Your task to perform on an android device: toggle notification dots Image 0: 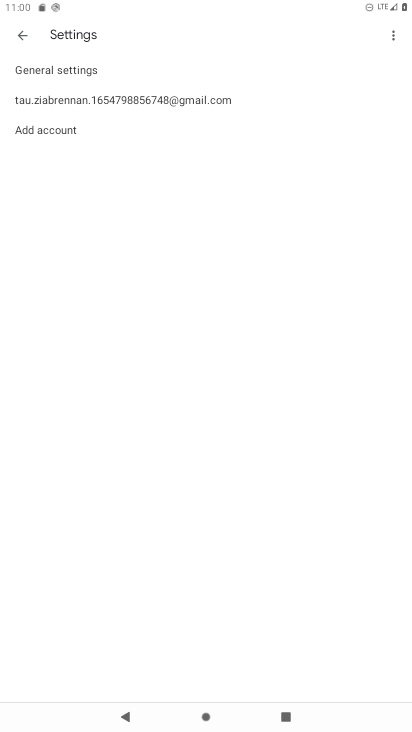
Step 0: press home button
Your task to perform on an android device: toggle notification dots Image 1: 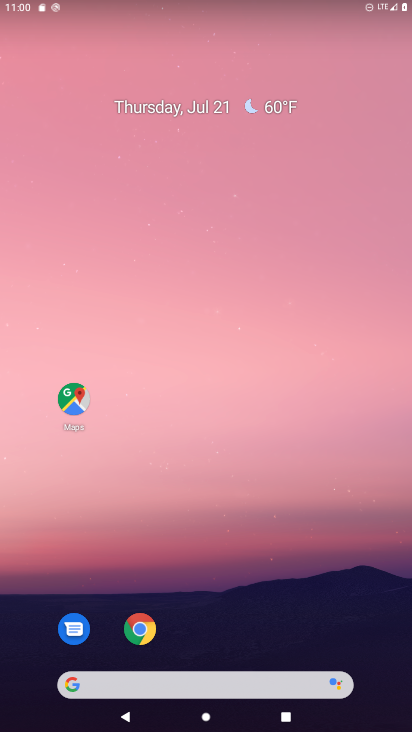
Step 1: drag from (245, 622) to (252, 96)
Your task to perform on an android device: toggle notification dots Image 2: 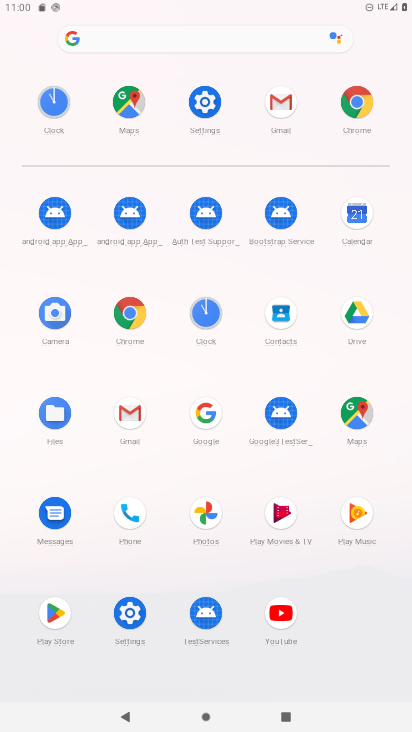
Step 2: click (193, 95)
Your task to perform on an android device: toggle notification dots Image 3: 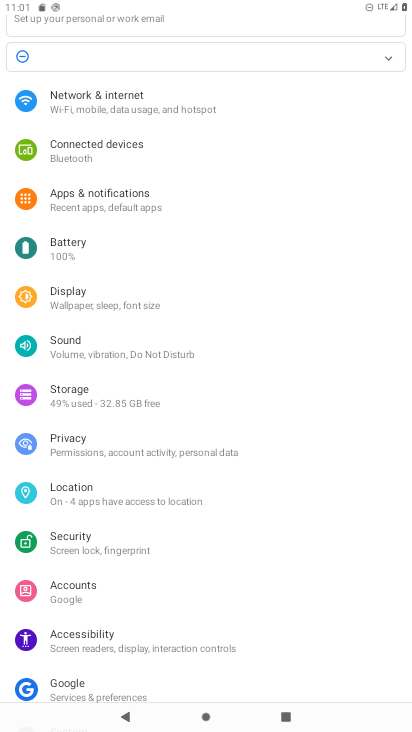
Step 3: click (94, 202)
Your task to perform on an android device: toggle notification dots Image 4: 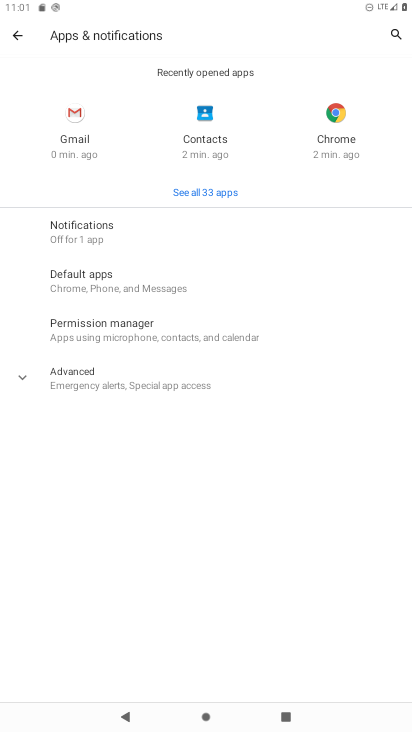
Step 4: click (70, 227)
Your task to perform on an android device: toggle notification dots Image 5: 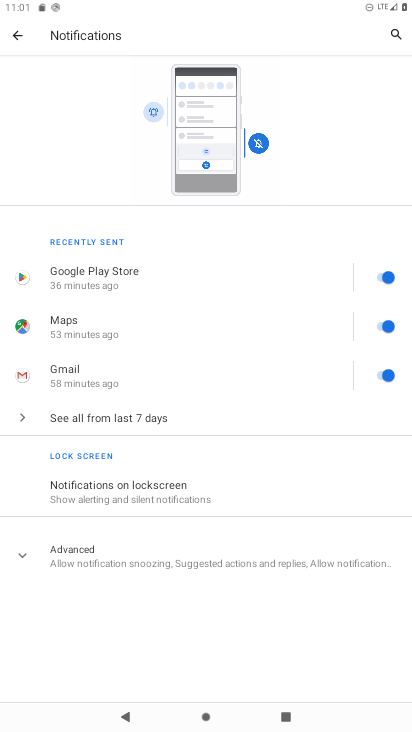
Step 5: click (22, 558)
Your task to perform on an android device: toggle notification dots Image 6: 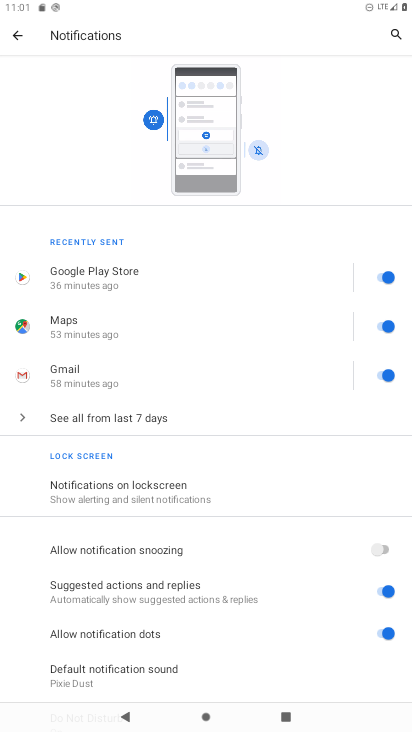
Step 6: click (378, 628)
Your task to perform on an android device: toggle notification dots Image 7: 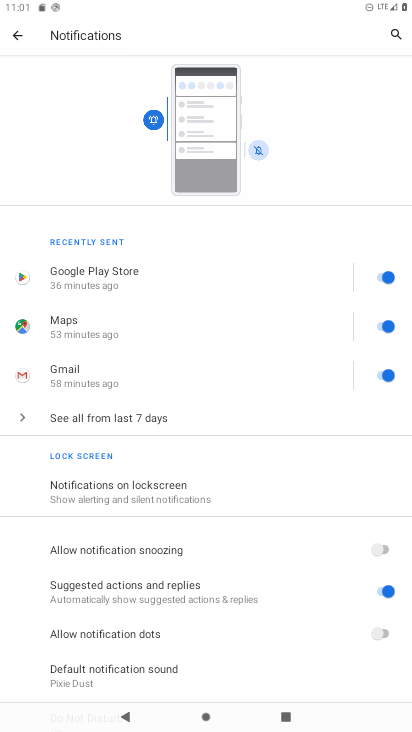
Step 7: task complete